Your task to perform on an android device: check storage Image 0: 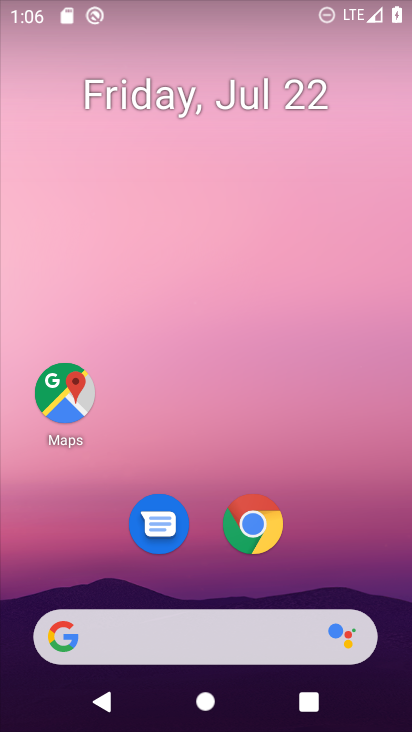
Step 0: drag from (320, 535) to (304, 12)
Your task to perform on an android device: check storage Image 1: 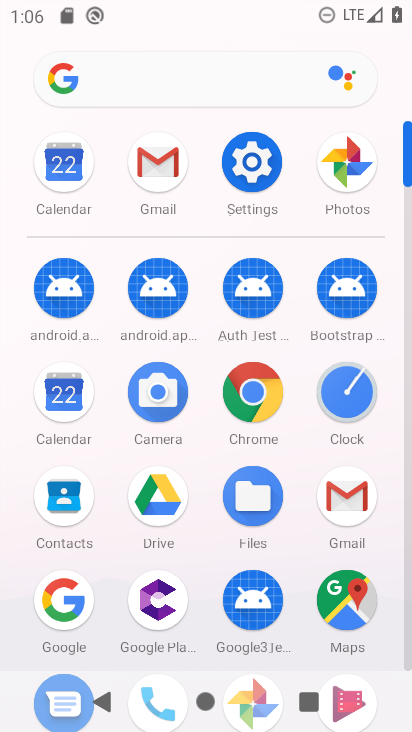
Step 1: click (265, 168)
Your task to perform on an android device: check storage Image 2: 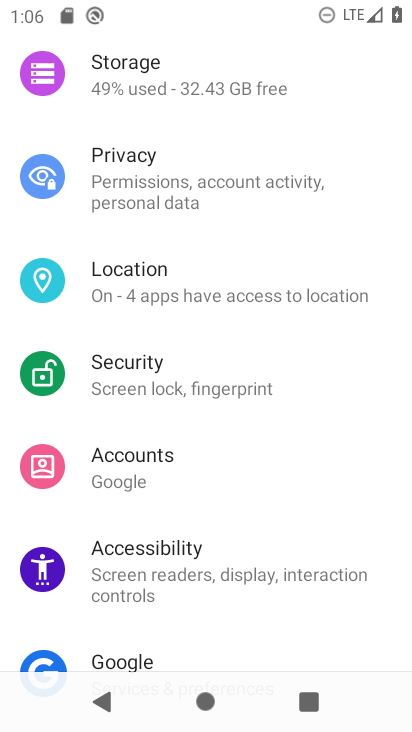
Step 2: click (215, 83)
Your task to perform on an android device: check storage Image 3: 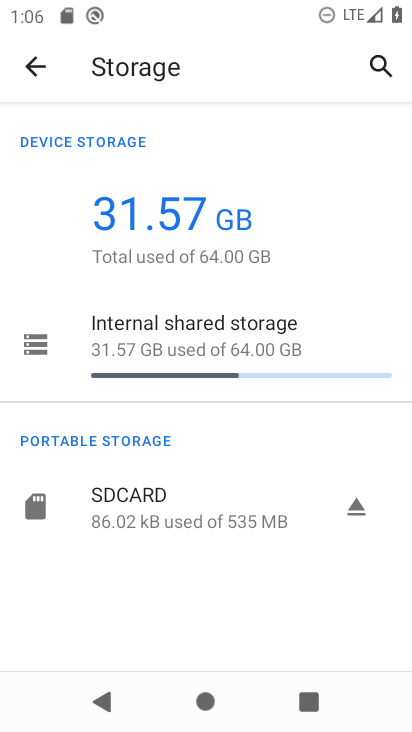
Step 3: task complete